Your task to perform on an android device: refresh tabs in the chrome app Image 0: 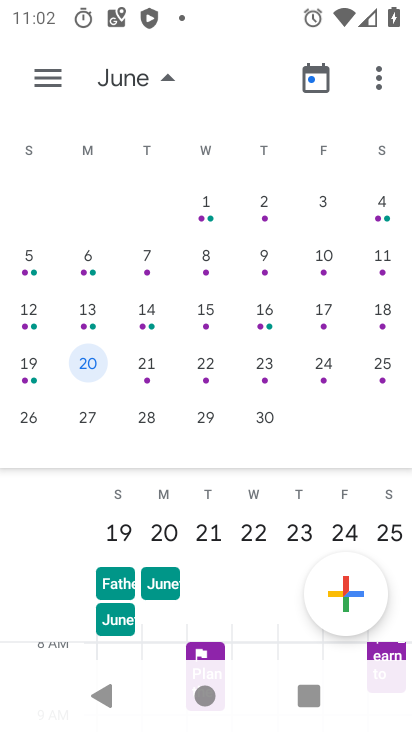
Step 0: press home button
Your task to perform on an android device: refresh tabs in the chrome app Image 1: 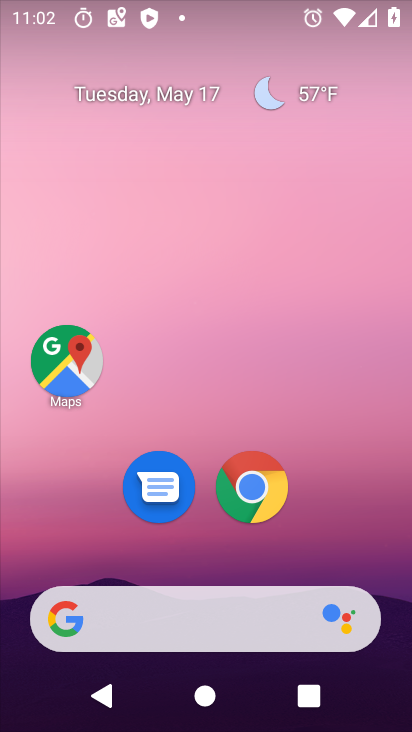
Step 1: click (252, 485)
Your task to perform on an android device: refresh tabs in the chrome app Image 2: 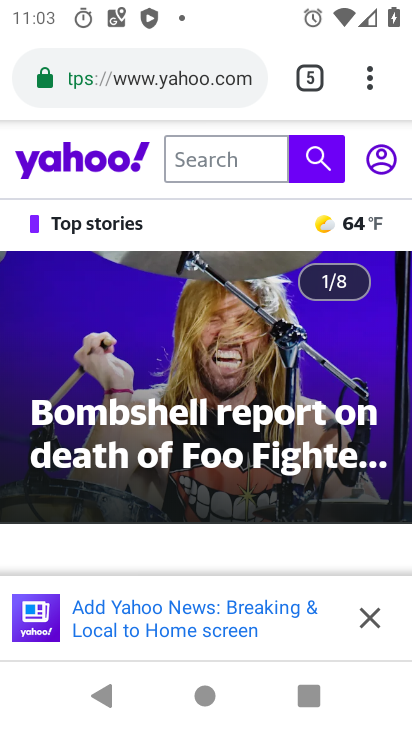
Step 2: click (372, 87)
Your task to perform on an android device: refresh tabs in the chrome app Image 3: 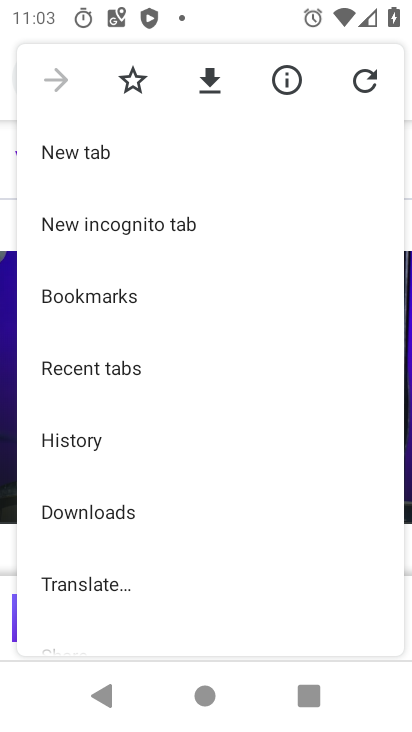
Step 3: click (358, 84)
Your task to perform on an android device: refresh tabs in the chrome app Image 4: 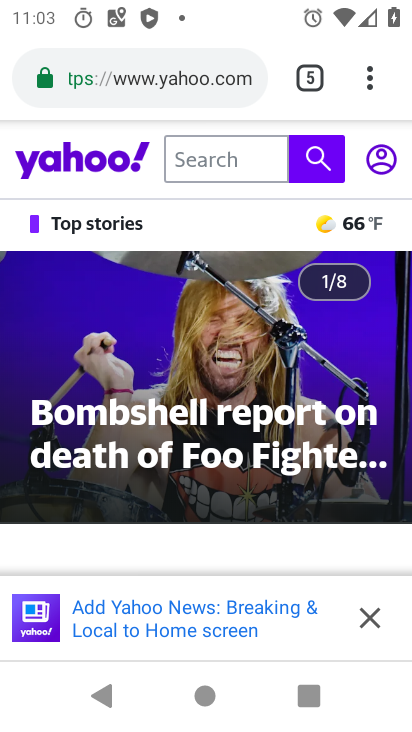
Step 4: task complete